Your task to perform on an android device: Open privacy settings Image 0: 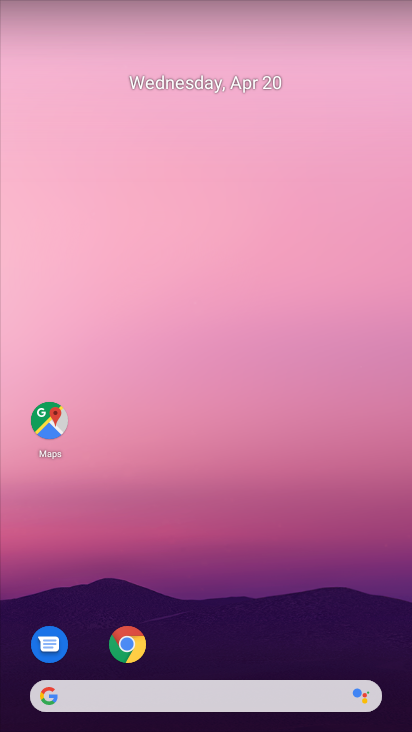
Step 0: drag from (351, 652) to (260, 198)
Your task to perform on an android device: Open privacy settings Image 1: 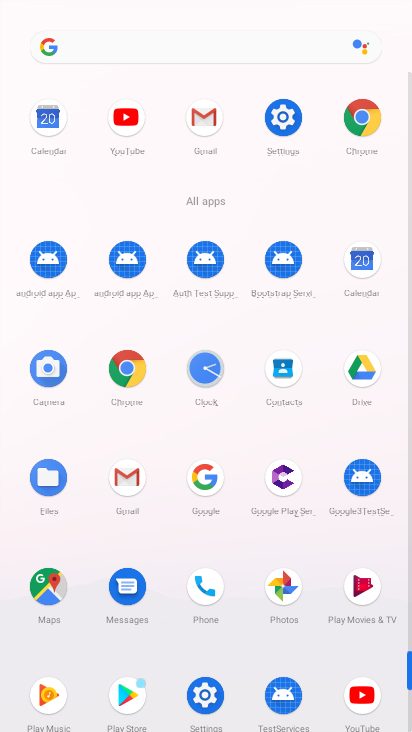
Step 1: click (201, 691)
Your task to perform on an android device: Open privacy settings Image 2: 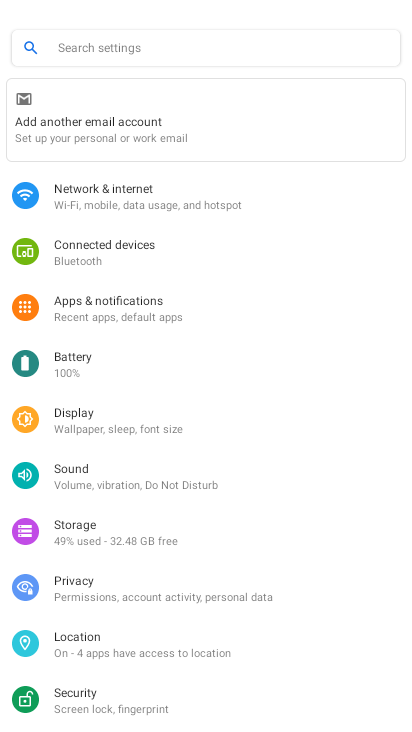
Step 2: click (85, 589)
Your task to perform on an android device: Open privacy settings Image 3: 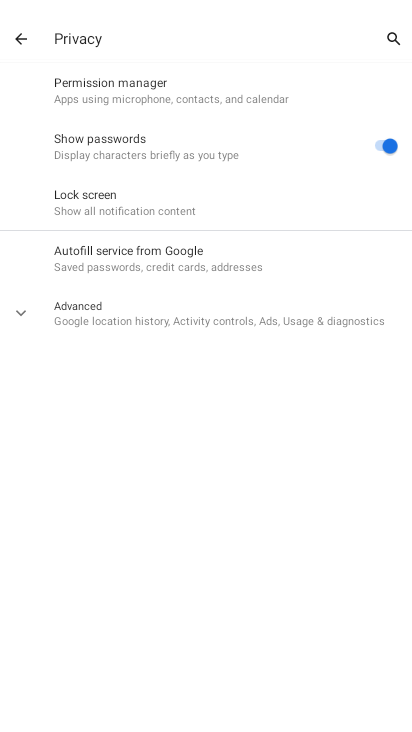
Step 3: click (20, 307)
Your task to perform on an android device: Open privacy settings Image 4: 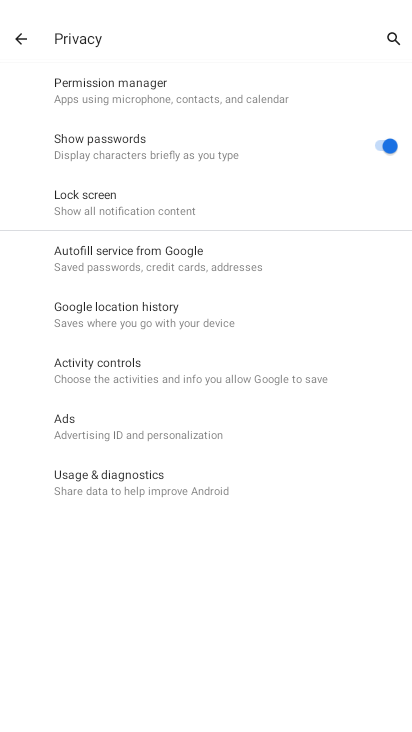
Step 4: task complete